Your task to perform on an android device: Turn on the flashlight Image 0: 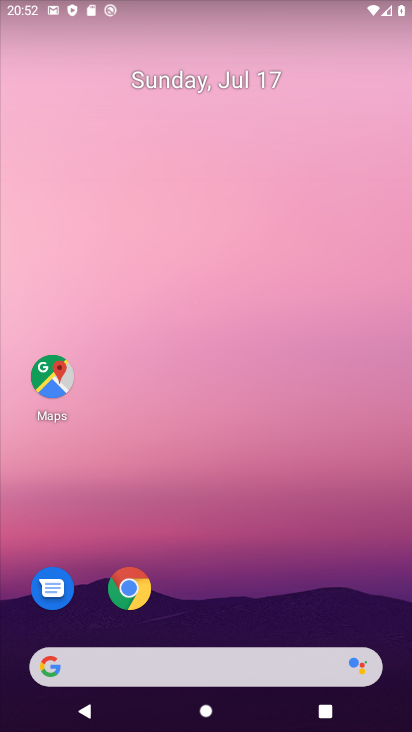
Step 0: press home button
Your task to perform on an android device: Turn on the flashlight Image 1: 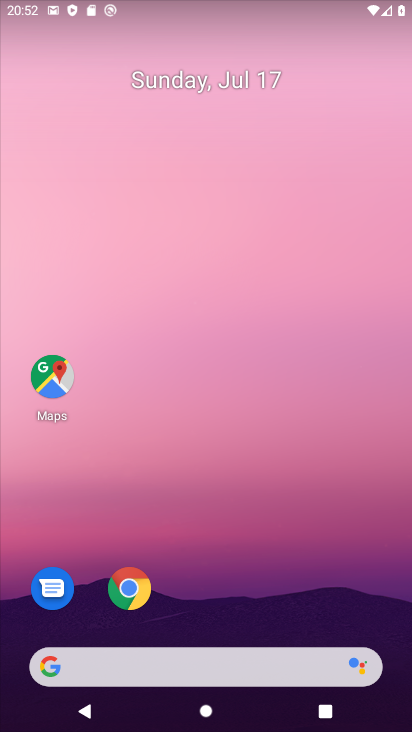
Step 1: click (204, 620)
Your task to perform on an android device: Turn on the flashlight Image 2: 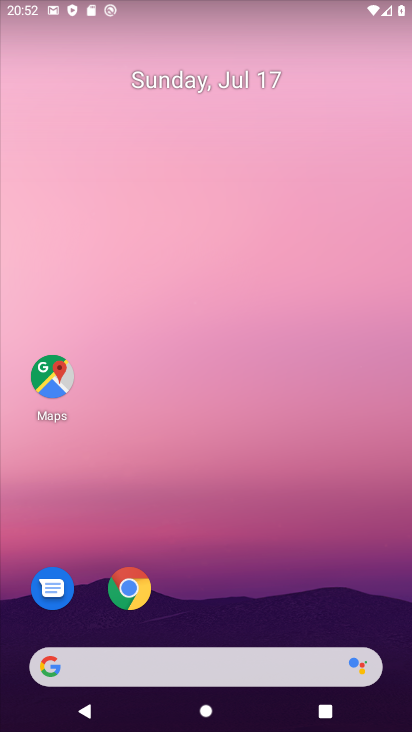
Step 2: task complete